Your task to perform on an android device: Open privacy settings Image 0: 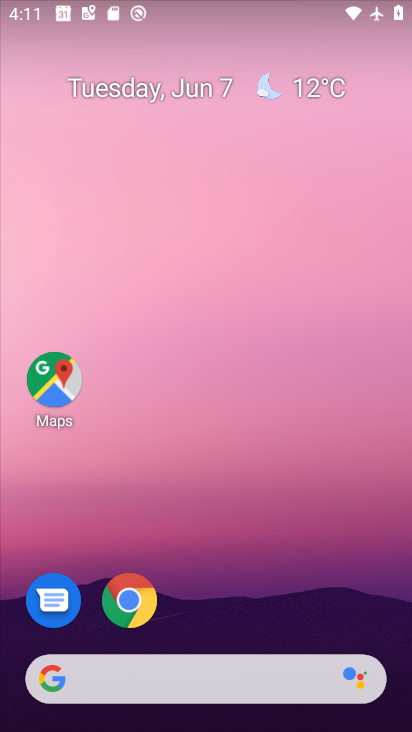
Step 0: drag from (309, 570) to (222, 183)
Your task to perform on an android device: Open privacy settings Image 1: 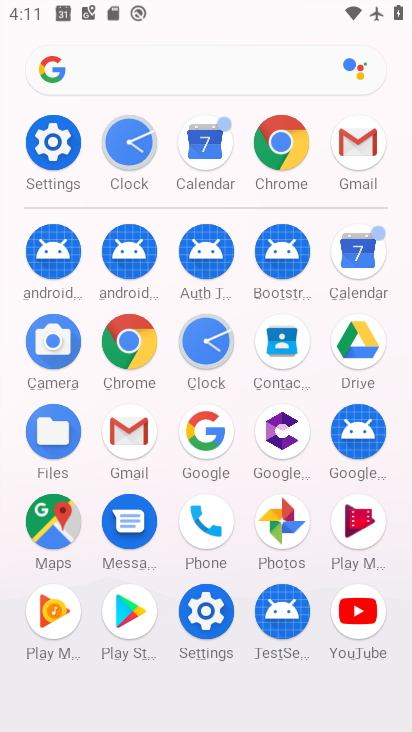
Step 1: click (60, 129)
Your task to perform on an android device: Open privacy settings Image 2: 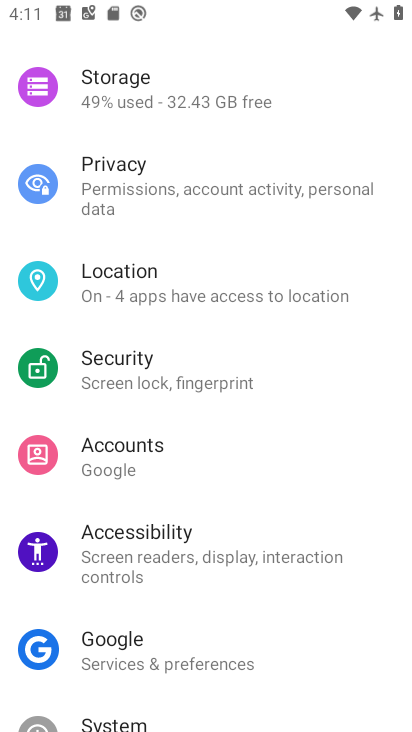
Step 2: click (231, 547)
Your task to perform on an android device: Open privacy settings Image 3: 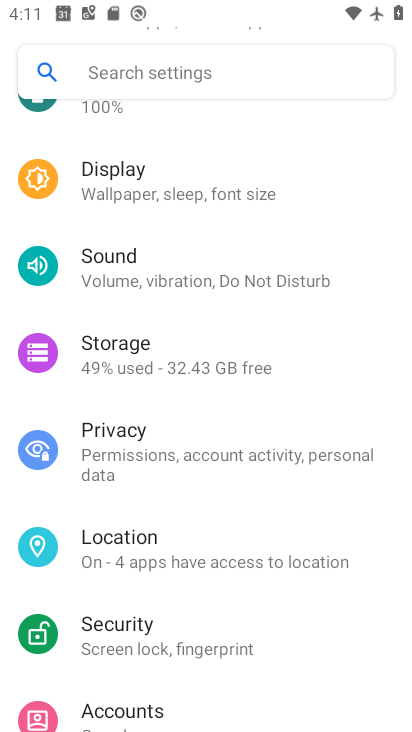
Step 3: click (184, 454)
Your task to perform on an android device: Open privacy settings Image 4: 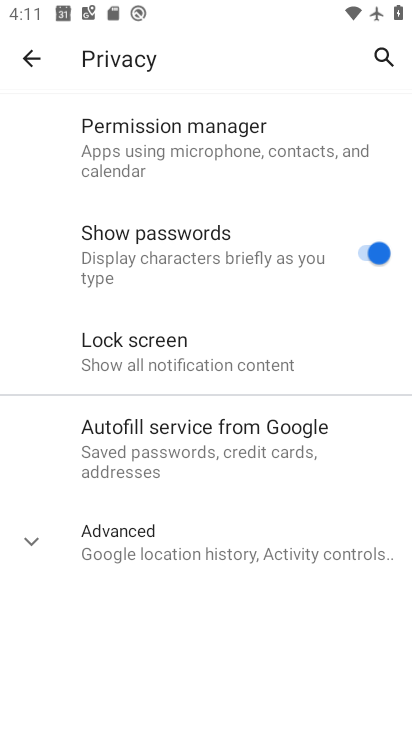
Step 4: task complete